Your task to perform on an android device: Search for bose soundlink on target, select the first entry, add it to the cart, then select checkout. Image 0: 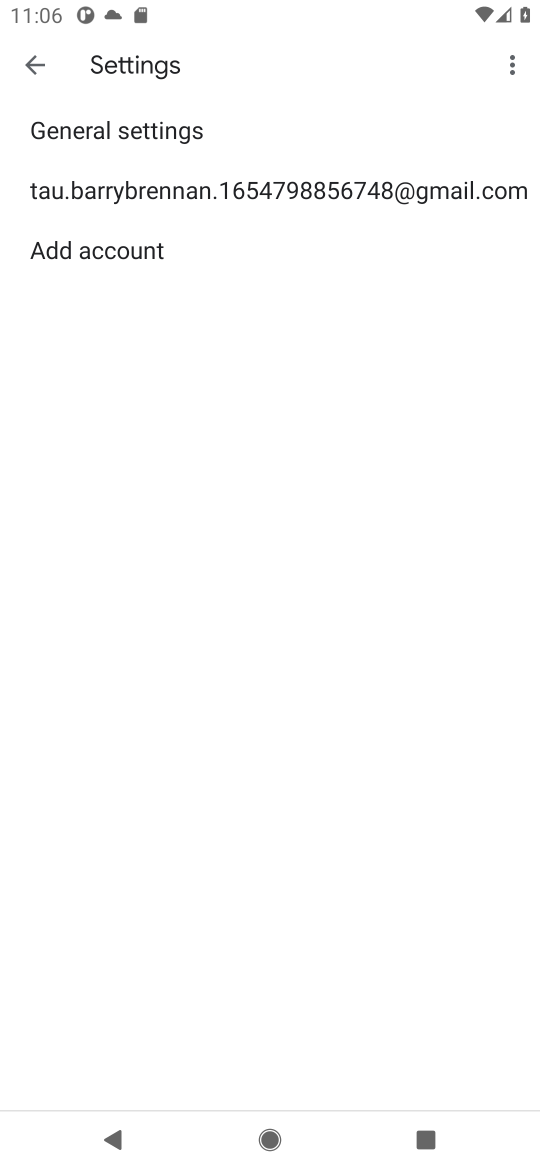
Step 0: press back button
Your task to perform on an android device: Search for bose soundlink on target, select the first entry, add it to the cart, then select checkout. Image 1: 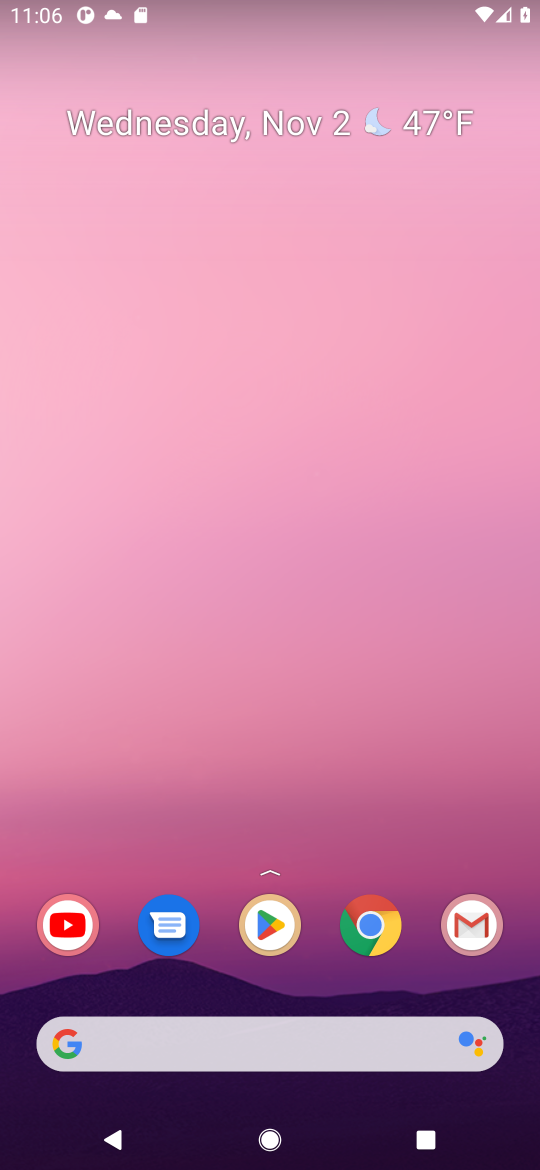
Step 1: click (357, 921)
Your task to perform on an android device: Search for bose soundlink on target, select the first entry, add it to the cart, then select checkout. Image 2: 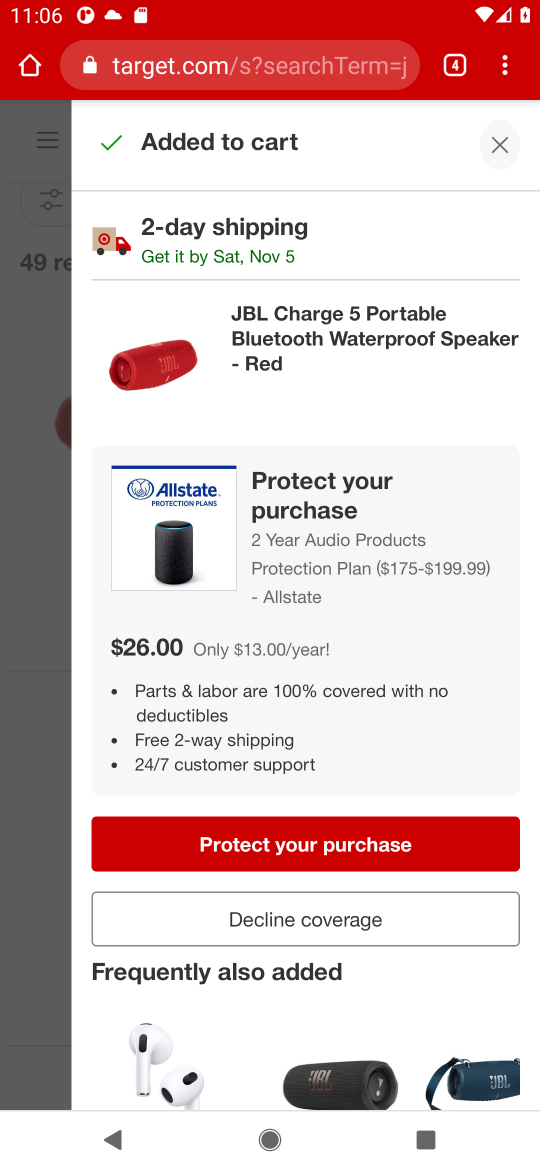
Step 2: click (502, 143)
Your task to perform on an android device: Search for bose soundlink on target, select the first entry, add it to the cart, then select checkout. Image 3: 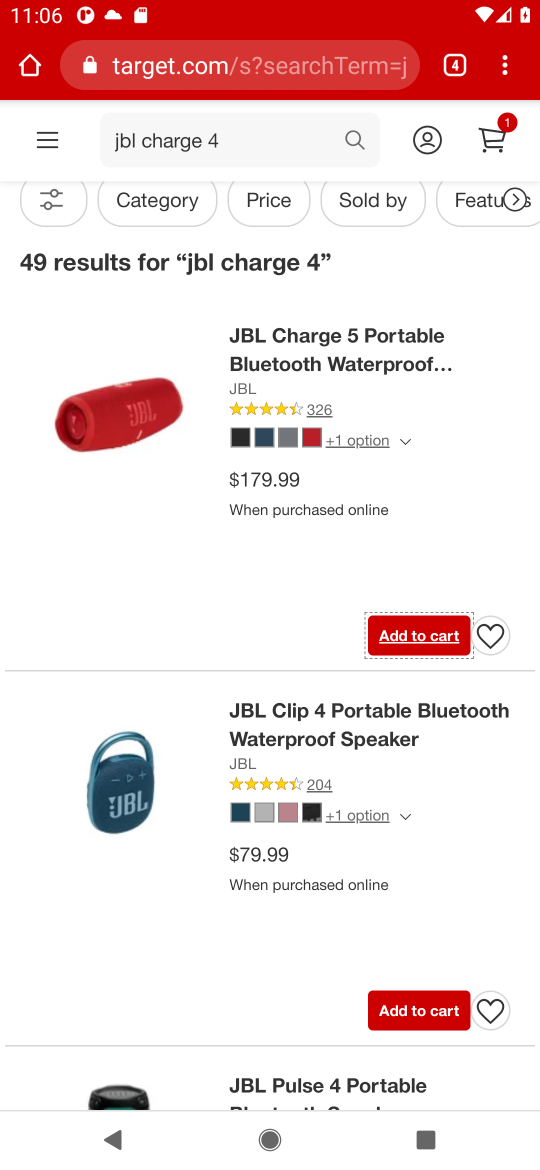
Step 3: click (352, 138)
Your task to perform on an android device: Search for bose soundlink on target, select the first entry, add it to the cart, then select checkout. Image 4: 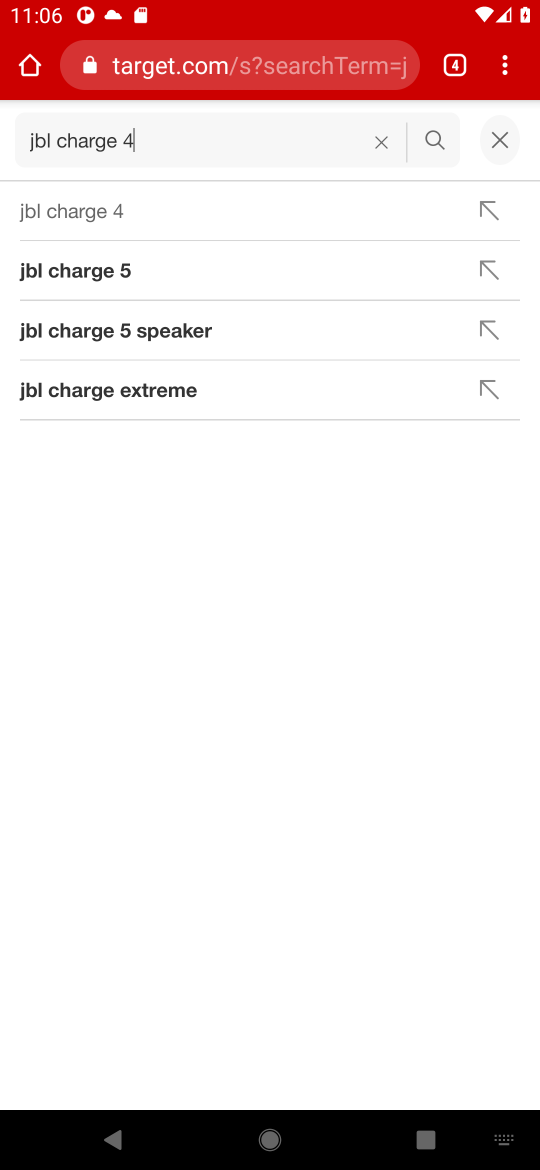
Step 4: click (383, 144)
Your task to perform on an android device: Search for bose soundlink on target, select the first entry, add it to the cart, then select checkout. Image 5: 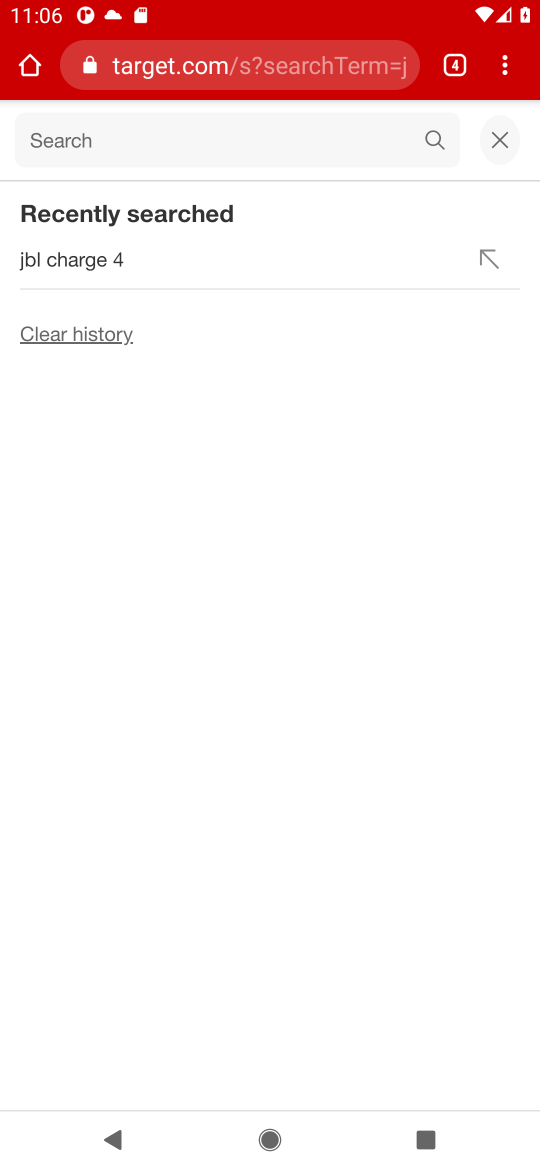
Step 5: type "bose soundlink"
Your task to perform on an android device: Search for bose soundlink on target, select the first entry, add it to the cart, then select checkout. Image 6: 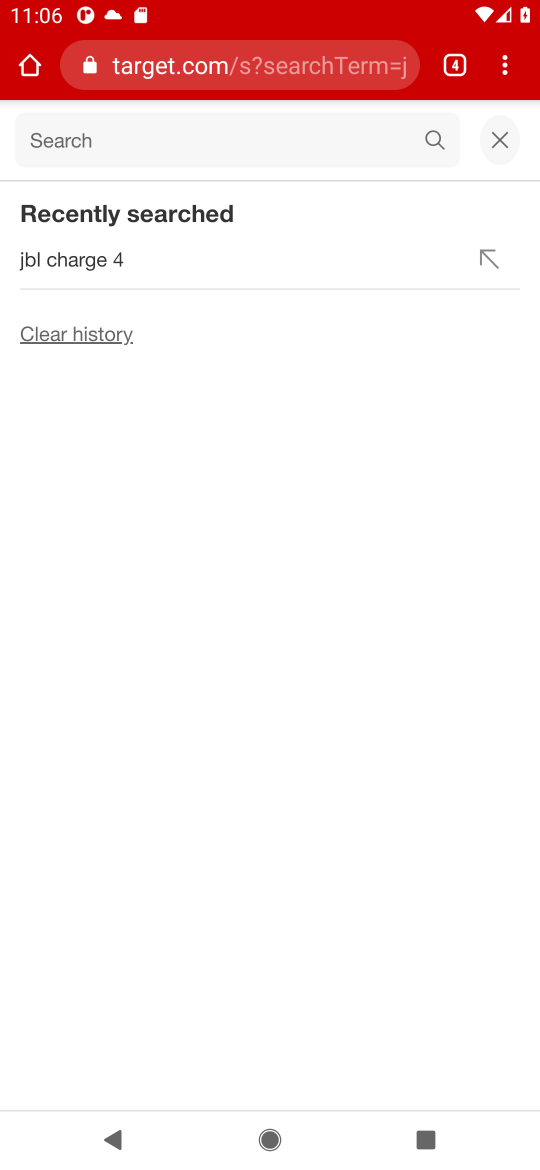
Step 6: click (129, 145)
Your task to perform on an android device: Search for bose soundlink on target, select the first entry, add it to the cart, then select checkout. Image 7: 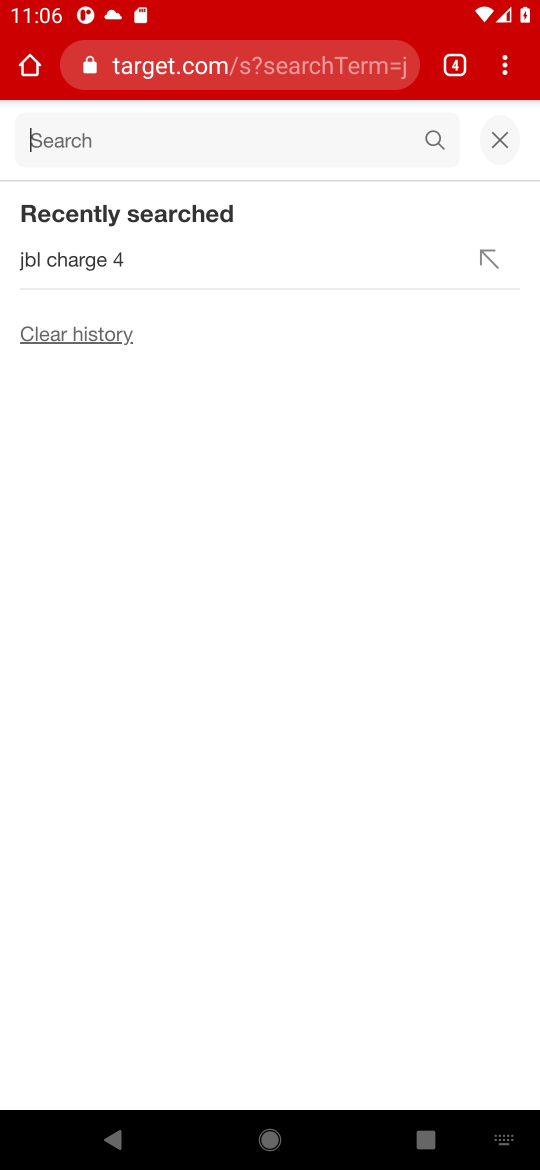
Step 7: type "bose soundlink"
Your task to perform on an android device: Search for bose soundlink on target, select the first entry, add it to the cart, then select checkout. Image 8: 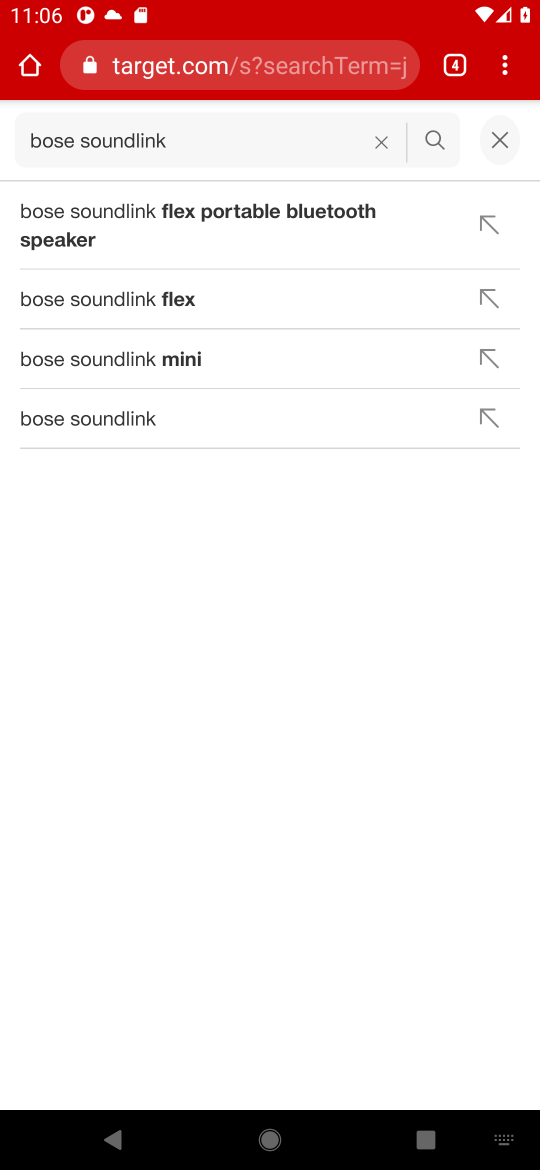
Step 8: click (179, 295)
Your task to perform on an android device: Search for bose soundlink on target, select the first entry, add it to the cart, then select checkout. Image 9: 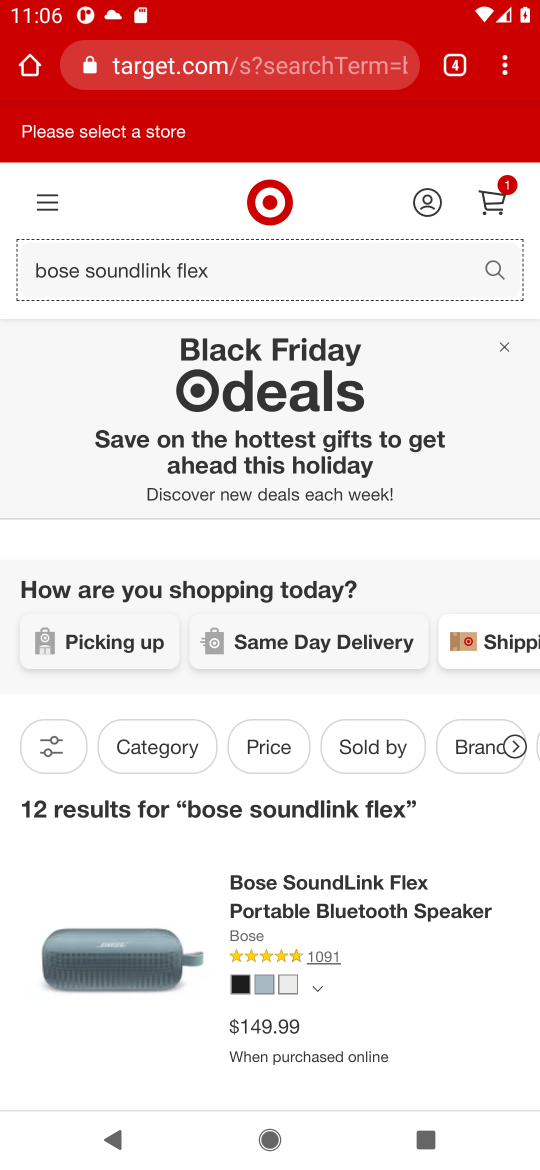
Step 9: drag from (222, 1067) to (333, 396)
Your task to perform on an android device: Search for bose soundlink on target, select the first entry, add it to the cart, then select checkout. Image 10: 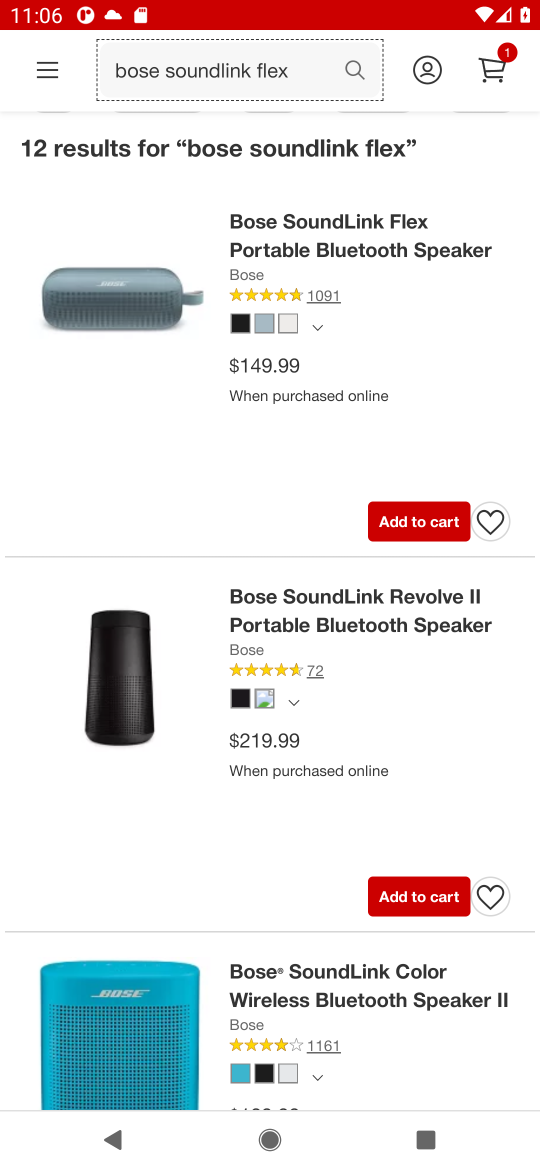
Step 10: click (422, 526)
Your task to perform on an android device: Search for bose soundlink on target, select the first entry, add it to the cart, then select checkout. Image 11: 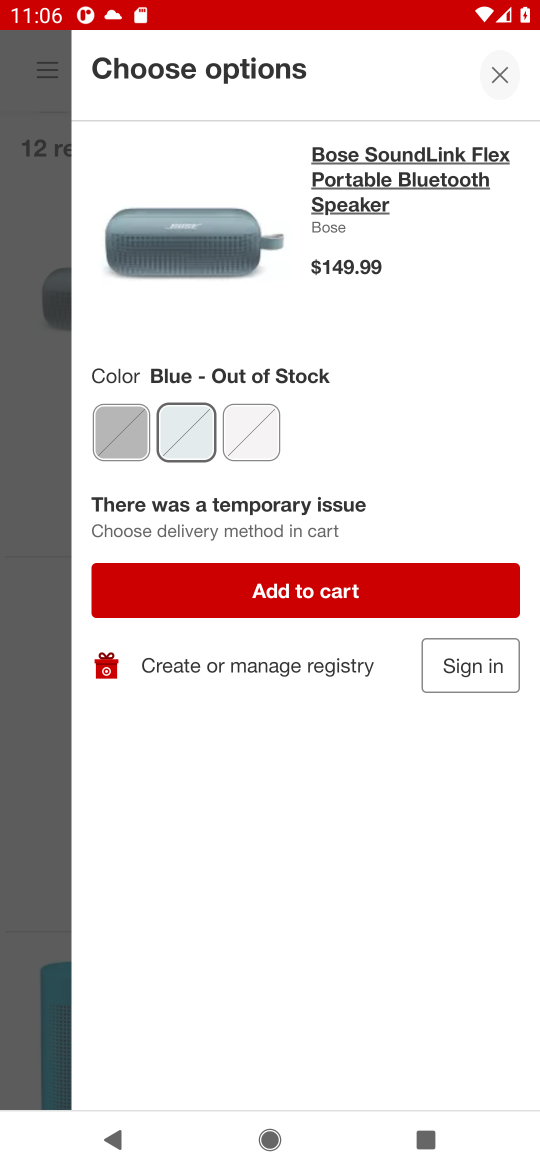
Step 11: click (315, 595)
Your task to perform on an android device: Search for bose soundlink on target, select the first entry, add it to the cart, then select checkout. Image 12: 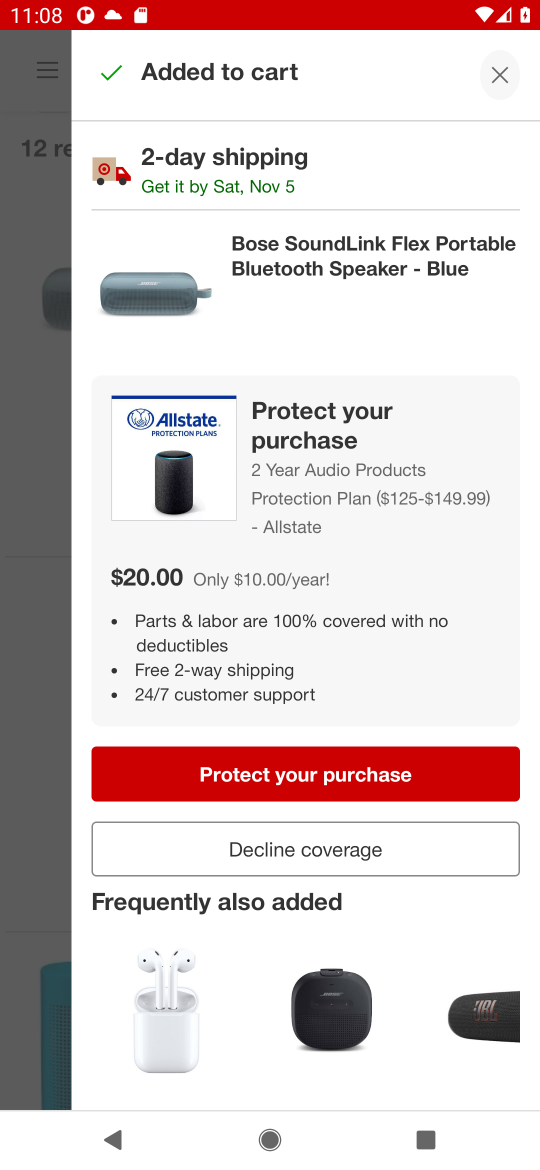
Step 12: task complete